Your task to perform on an android device: read, delete, or share a saved page in the chrome app Image 0: 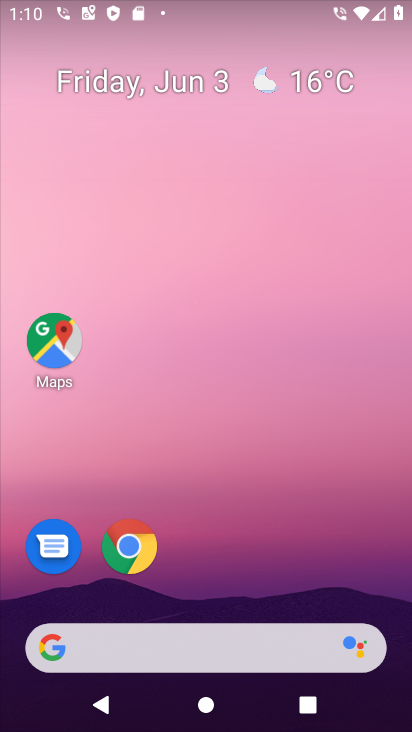
Step 0: click (127, 539)
Your task to perform on an android device: read, delete, or share a saved page in the chrome app Image 1: 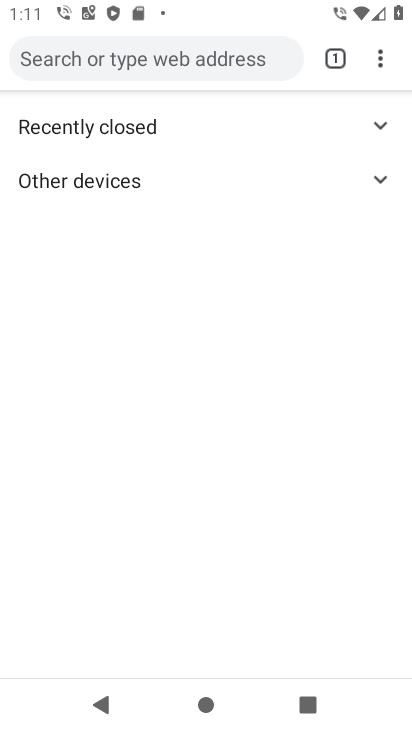
Step 1: click (370, 58)
Your task to perform on an android device: read, delete, or share a saved page in the chrome app Image 2: 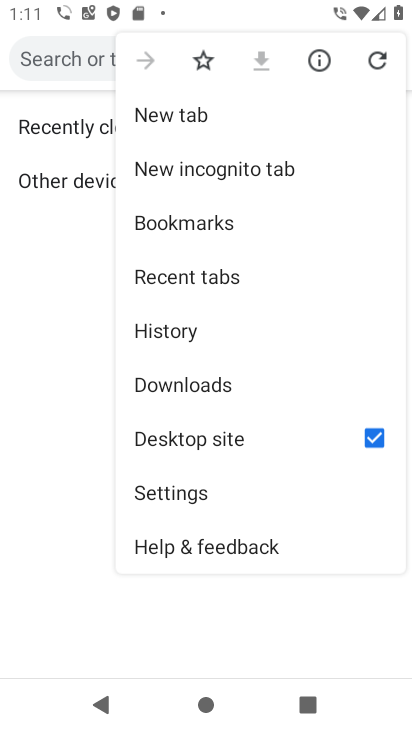
Step 2: click (185, 386)
Your task to perform on an android device: read, delete, or share a saved page in the chrome app Image 3: 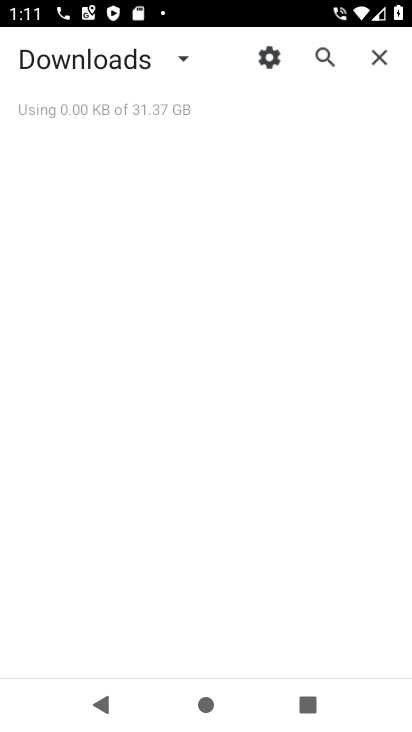
Step 3: task complete